Your task to perform on an android device: toggle airplane mode Image 0: 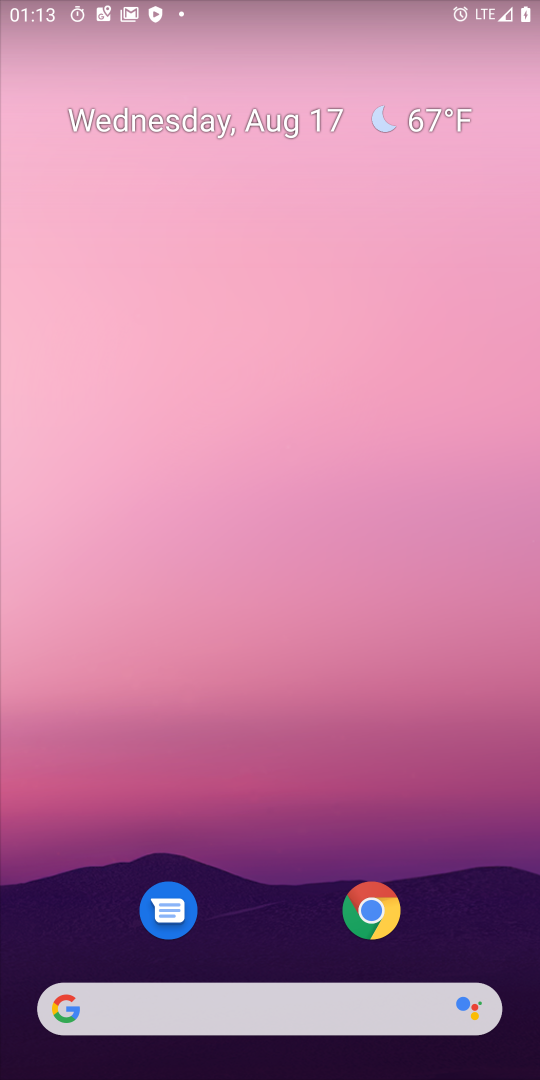
Step 0: drag from (274, 833) to (420, 59)
Your task to perform on an android device: toggle airplane mode Image 1: 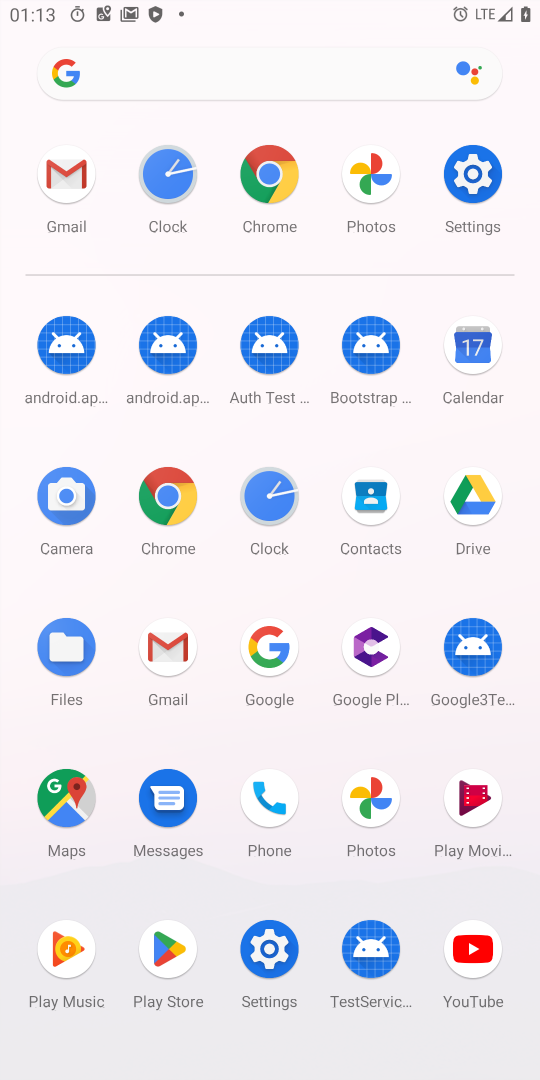
Step 1: click (272, 931)
Your task to perform on an android device: toggle airplane mode Image 2: 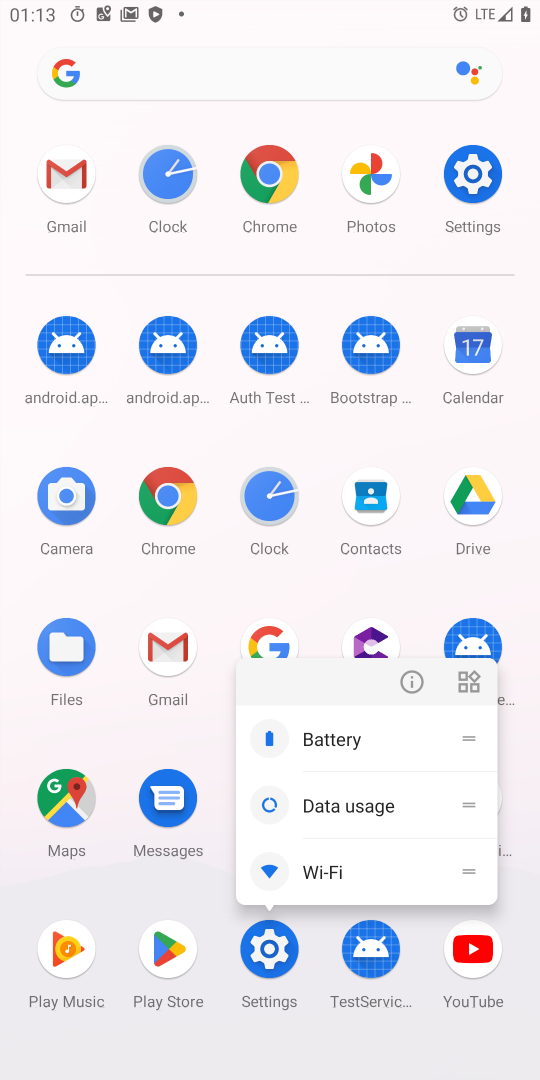
Step 2: click (249, 952)
Your task to perform on an android device: toggle airplane mode Image 3: 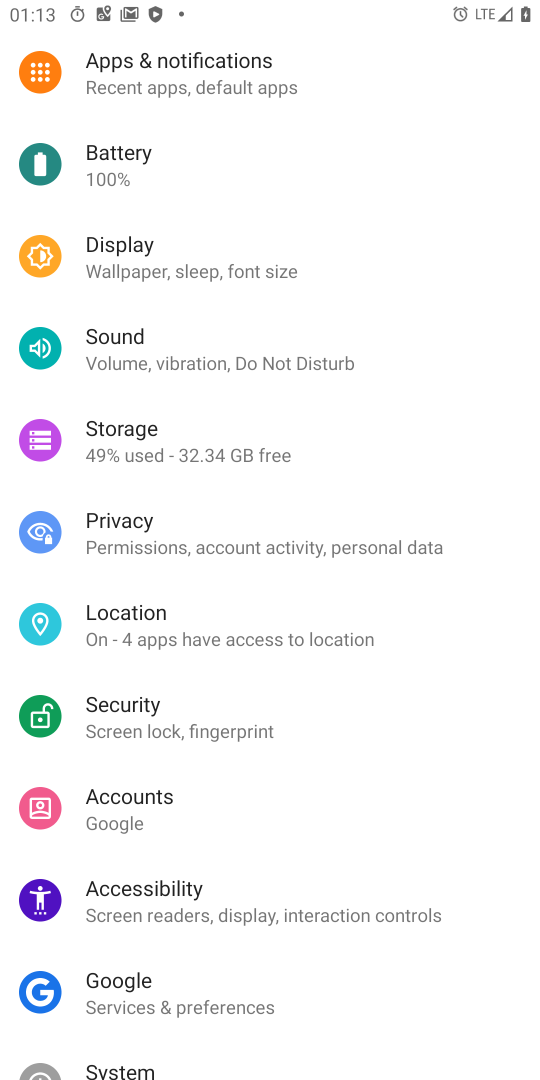
Step 3: drag from (255, 104) to (344, 833)
Your task to perform on an android device: toggle airplane mode Image 4: 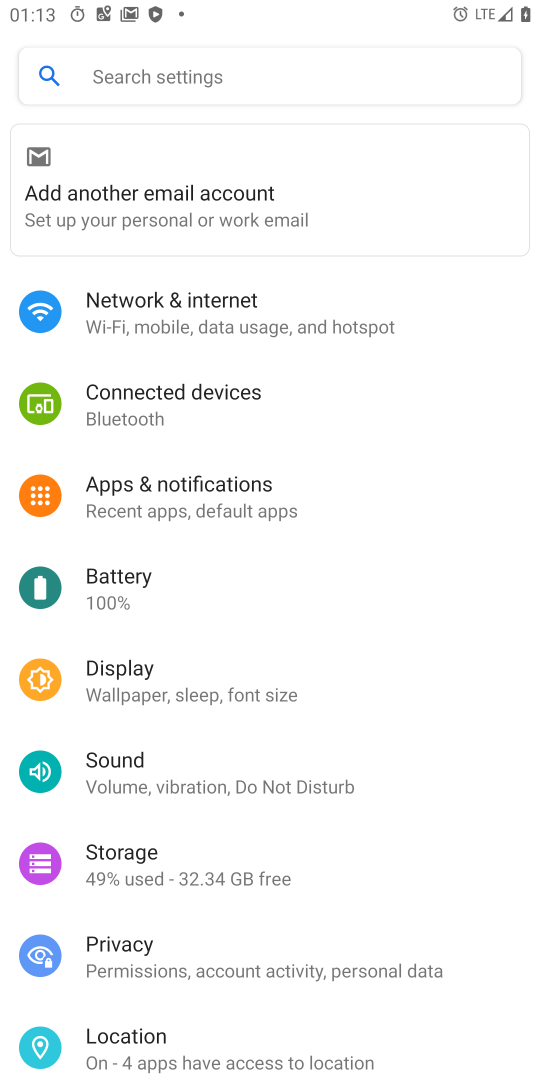
Step 4: click (238, 328)
Your task to perform on an android device: toggle airplane mode Image 5: 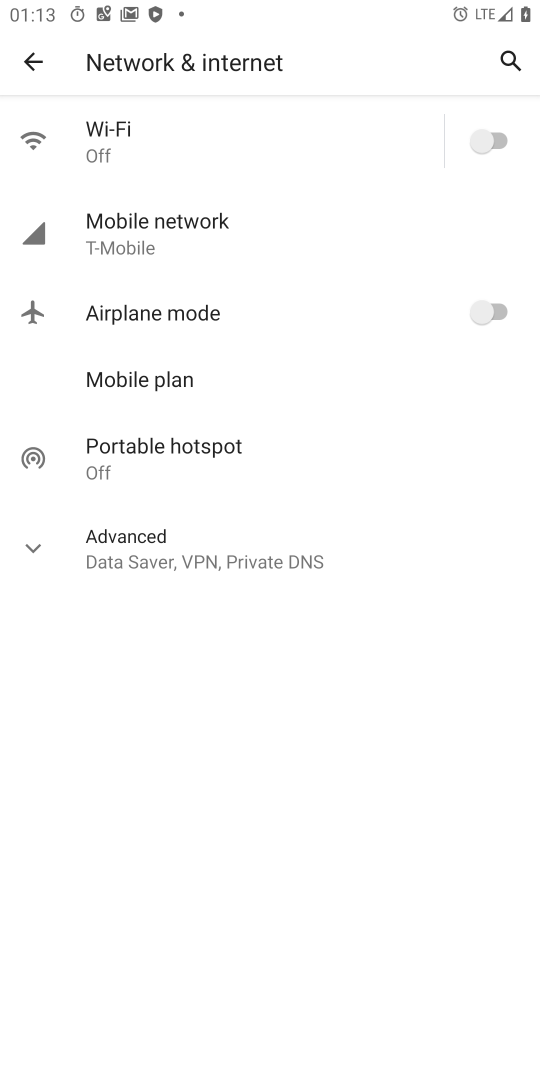
Step 5: click (471, 310)
Your task to perform on an android device: toggle airplane mode Image 6: 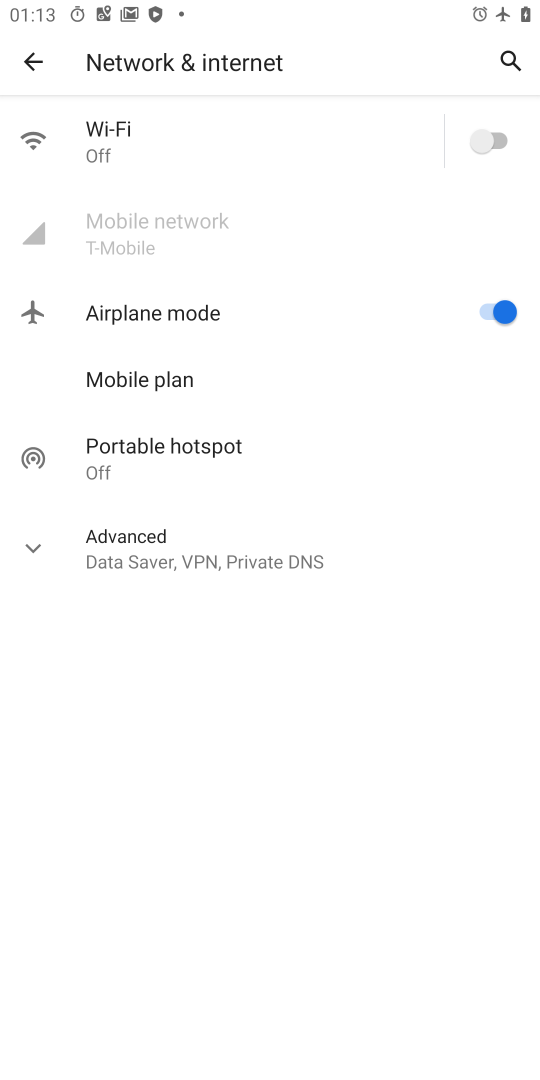
Step 6: task complete